Your task to perform on an android device: Do I have any events this weekend? Image 0: 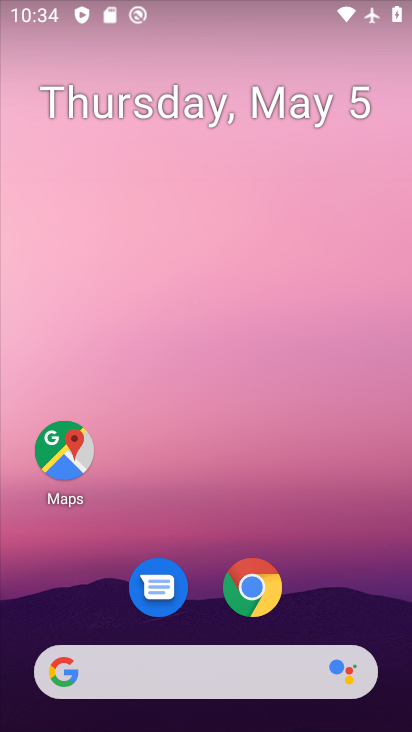
Step 0: drag from (390, 642) to (3, 636)
Your task to perform on an android device: Do I have any events this weekend? Image 1: 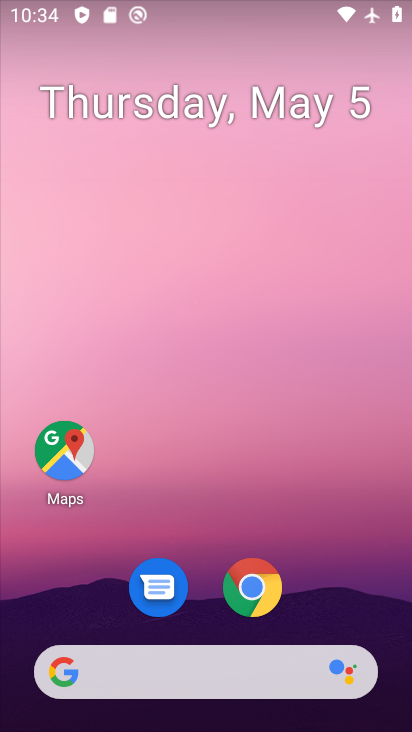
Step 1: drag from (8, 631) to (40, 49)
Your task to perform on an android device: Do I have any events this weekend? Image 2: 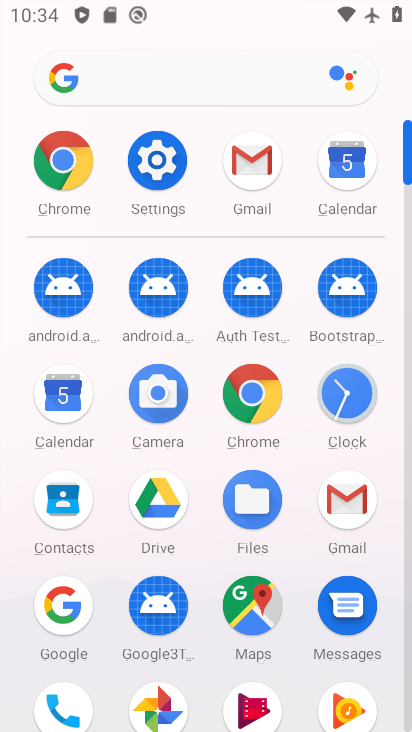
Step 2: drag from (12, 556) to (29, 251)
Your task to perform on an android device: Do I have any events this weekend? Image 3: 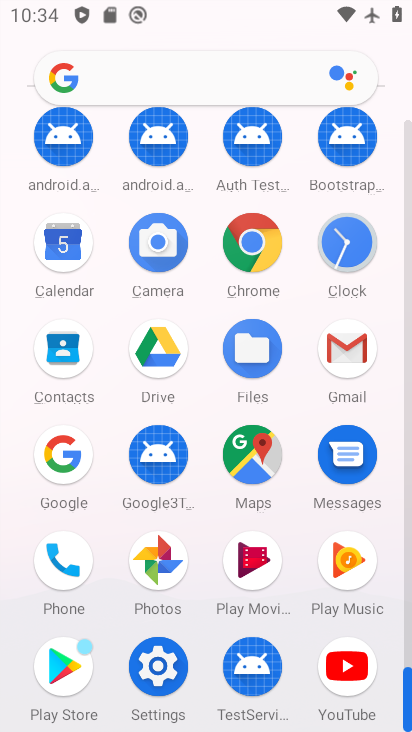
Step 3: click (64, 239)
Your task to perform on an android device: Do I have any events this weekend? Image 4: 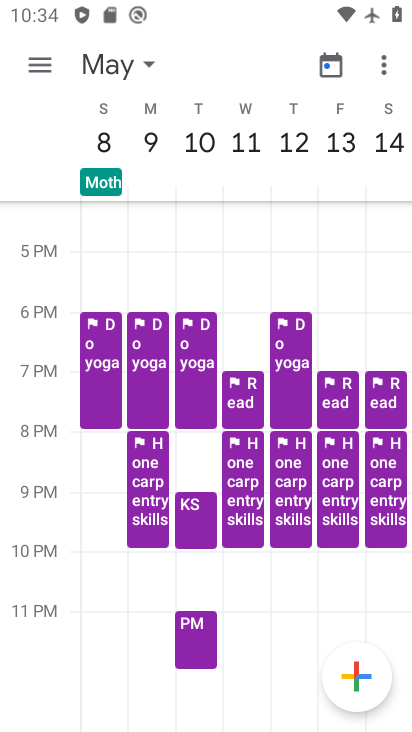
Step 4: click (322, 61)
Your task to perform on an android device: Do I have any events this weekend? Image 5: 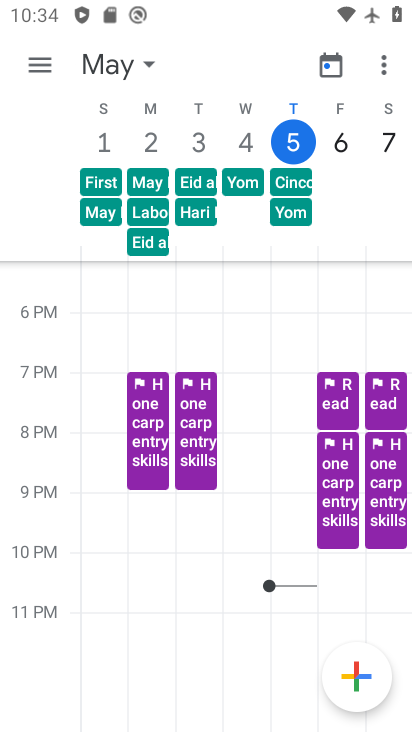
Step 5: click (387, 139)
Your task to perform on an android device: Do I have any events this weekend? Image 6: 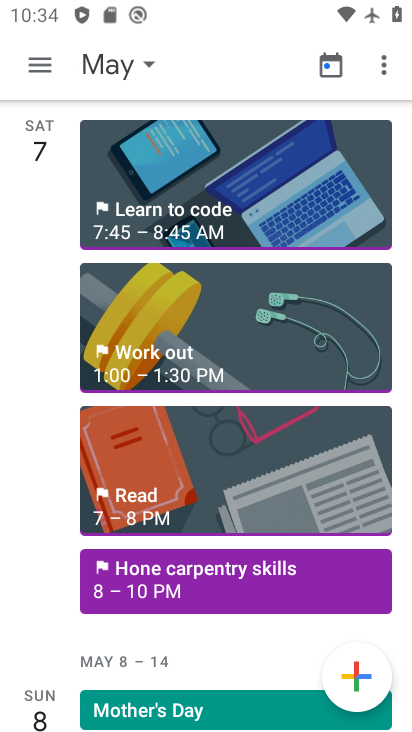
Step 6: task complete